Your task to perform on an android device: Go to privacy settings Image 0: 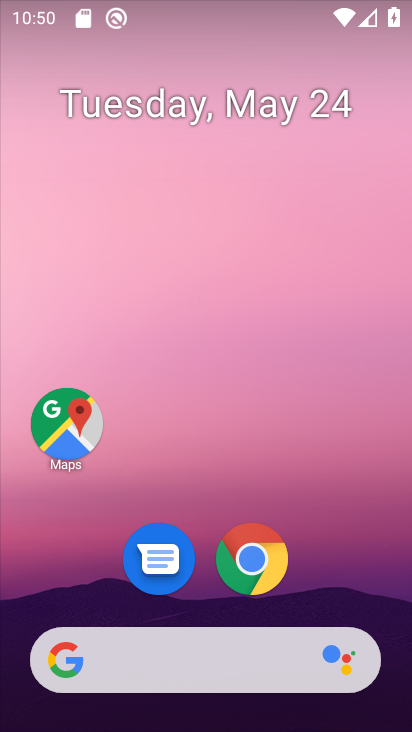
Step 0: click (269, 555)
Your task to perform on an android device: Go to privacy settings Image 1: 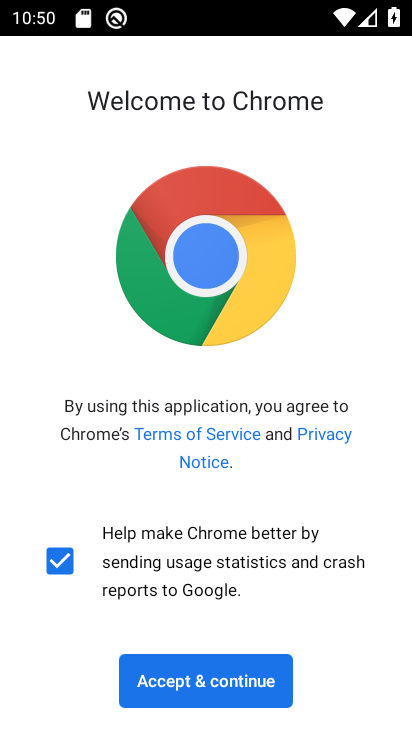
Step 1: click (221, 671)
Your task to perform on an android device: Go to privacy settings Image 2: 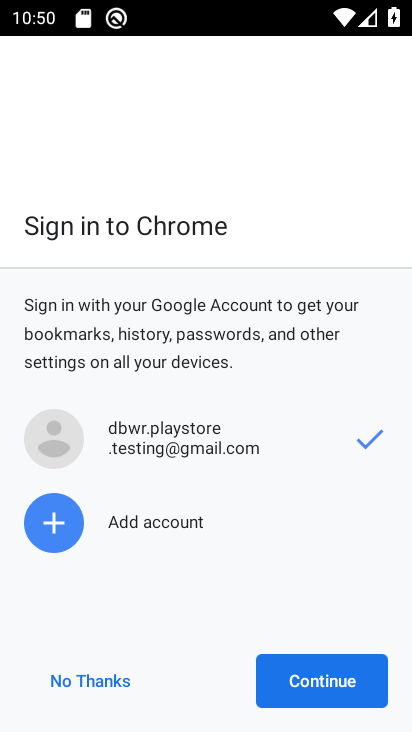
Step 2: click (328, 683)
Your task to perform on an android device: Go to privacy settings Image 3: 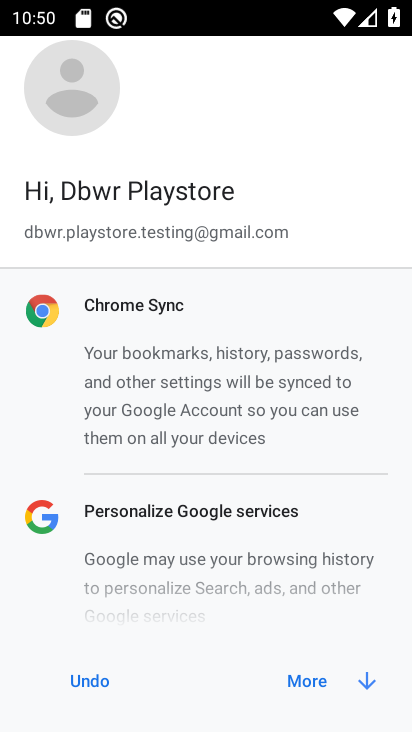
Step 3: click (288, 647)
Your task to perform on an android device: Go to privacy settings Image 4: 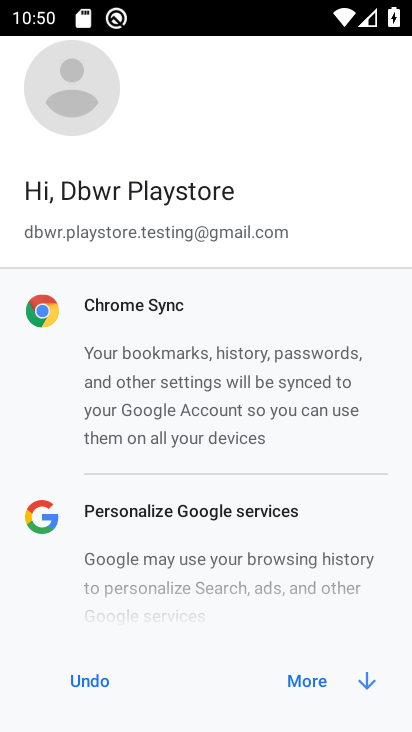
Step 4: click (320, 687)
Your task to perform on an android device: Go to privacy settings Image 5: 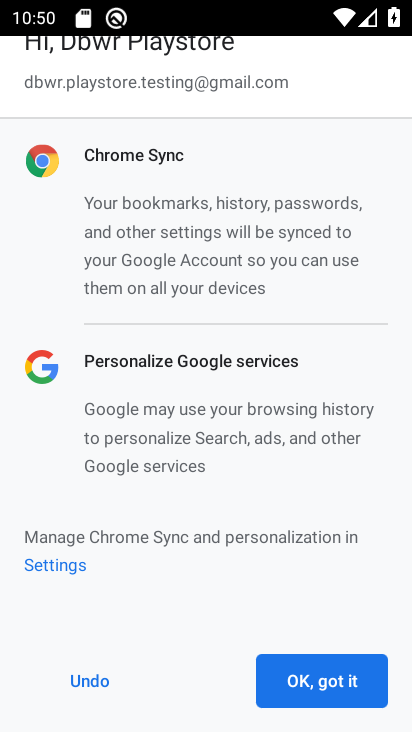
Step 5: click (327, 686)
Your task to perform on an android device: Go to privacy settings Image 6: 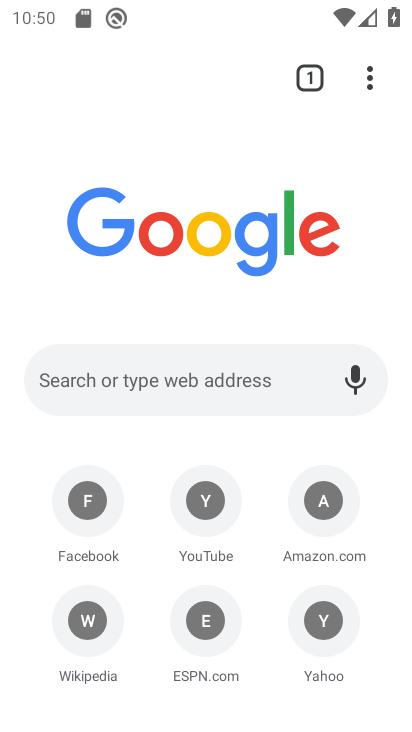
Step 6: drag from (383, 73) to (242, 611)
Your task to perform on an android device: Go to privacy settings Image 7: 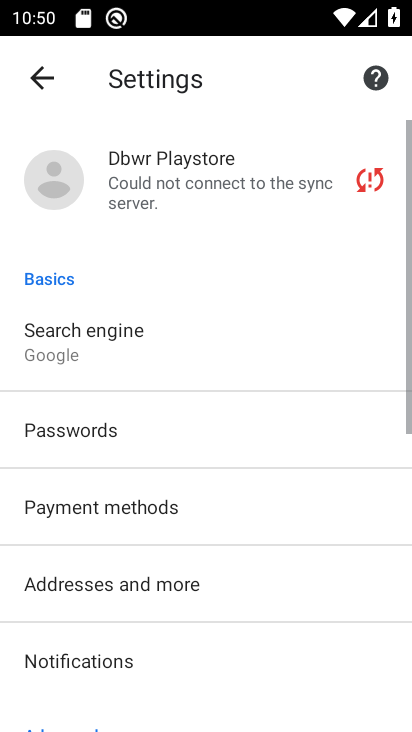
Step 7: drag from (221, 677) to (292, 181)
Your task to perform on an android device: Go to privacy settings Image 8: 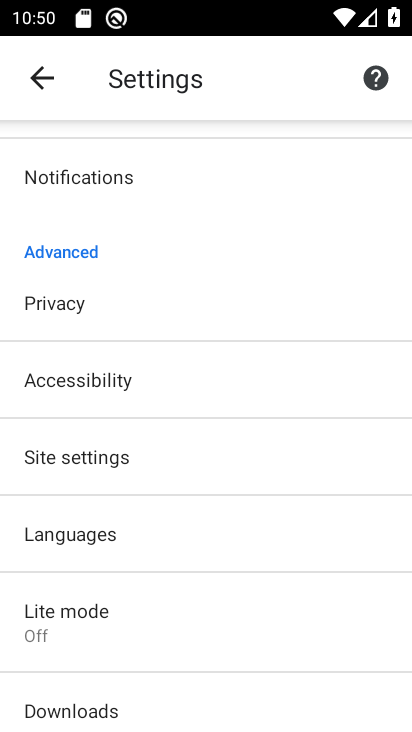
Step 8: click (111, 293)
Your task to perform on an android device: Go to privacy settings Image 9: 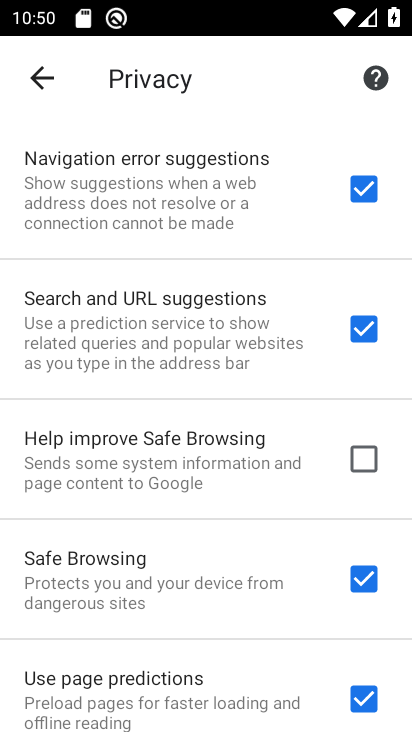
Step 9: task complete